Your task to perform on an android device: stop showing notifications on the lock screen Image 0: 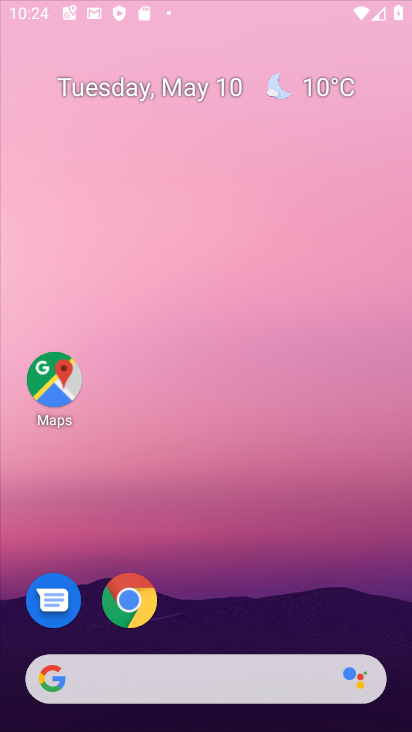
Step 0: drag from (235, 6) to (377, 4)
Your task to perform on an android device: stop showing notifications on the lock screen Image 1: 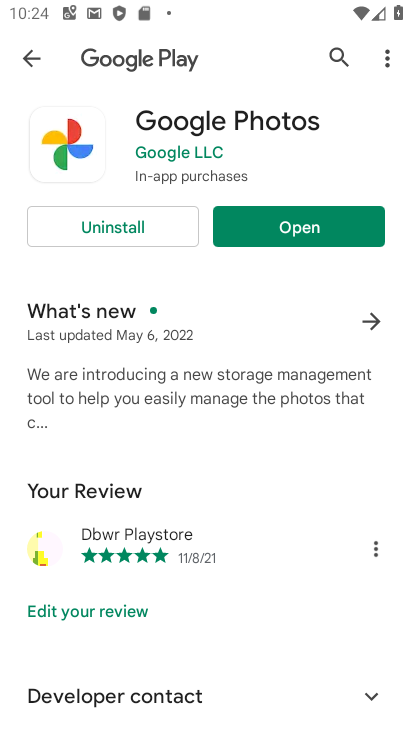
Step 1: press back button
Your task to perform on an android device: stop showing notifications on the lock screen Image 2: 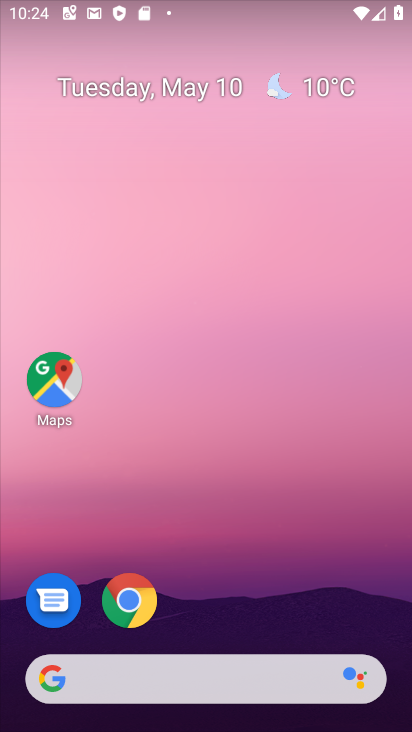
Step 2: drag from (273, 288) to (250, 19)
Your task to perform on an android device: stop showing notifications on the lock screen Image 3: 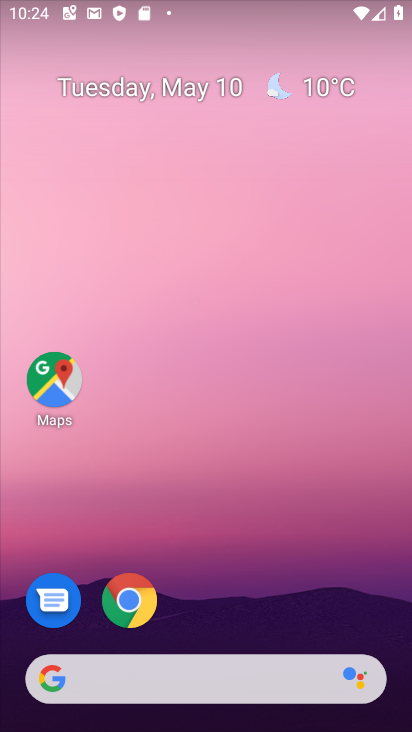
Step 3: drag from (215, 568) to (207, 2)
Your task to perform on an android device: stop showing notifications on the lock screen Image 4: 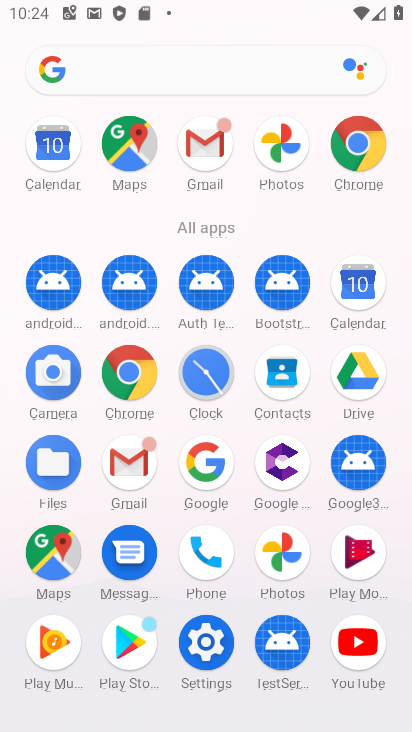
Step 4: click (206, 638)
Your task to perform on an android device: stop showing notifications on the lock screen Image 5: 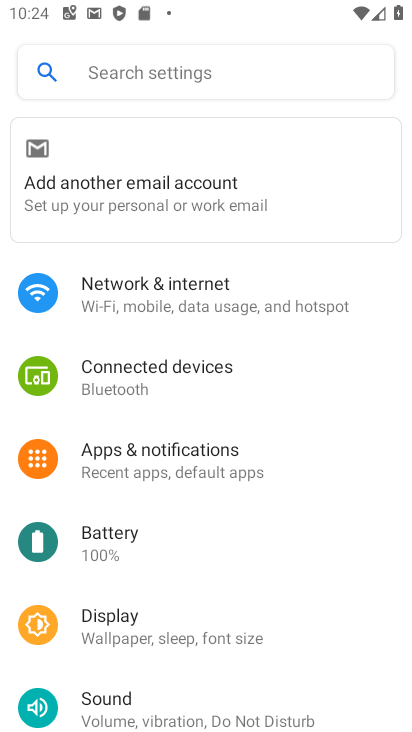
Step 5: click (182, 456)
Your task to perform on an android device: stop showing notifications on the lock screen Image 6: 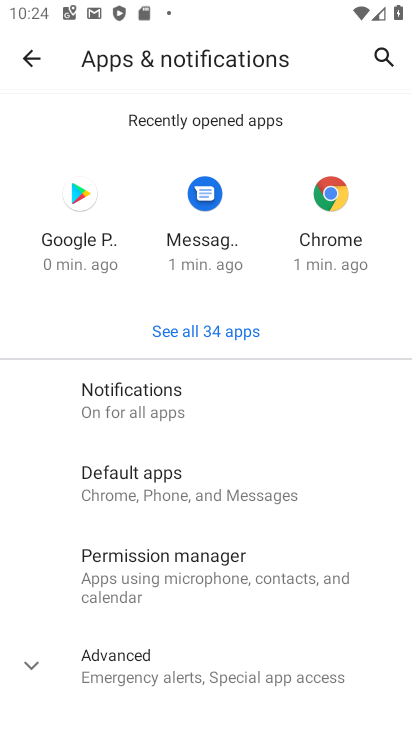
Step 6: click (171, 404)
Your task to perform on an android device: stop showing notifications on the lock screen Image 7: 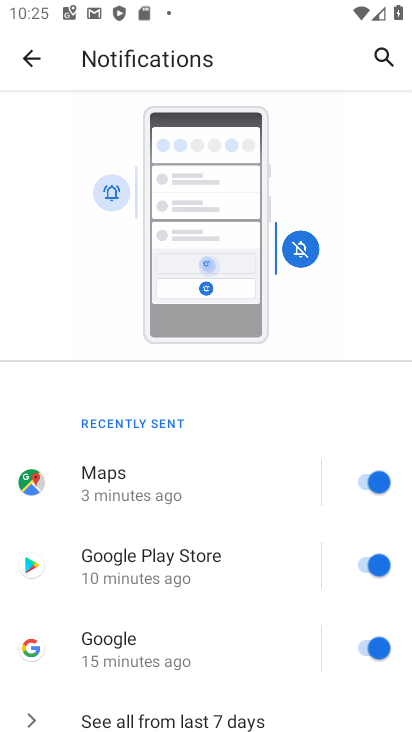
Step 7: drag from (187, 658) to (208, 174)
Your task to perform on an android device: stop showing notifications on the lock screen Image 8: 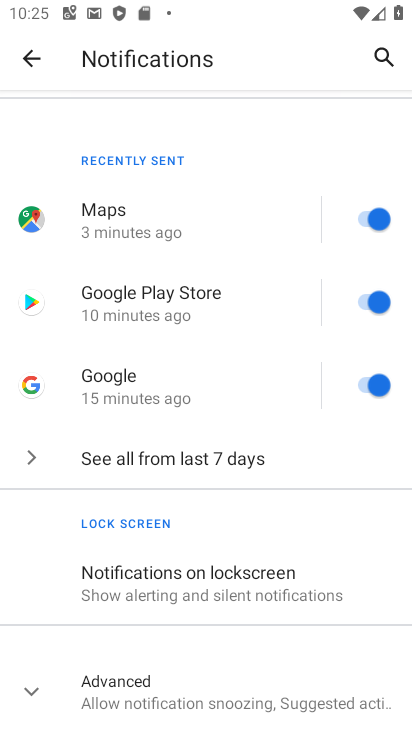
Step 8: click (208, 580)
Your task to perform on an android device: stop showing notifications on the lock screen Image 9: 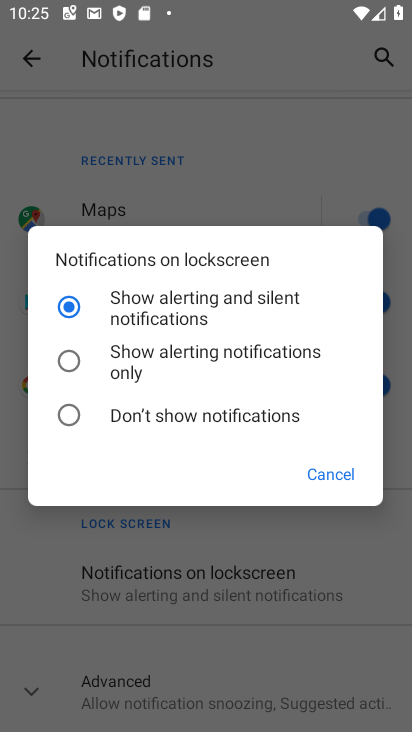
Step 9: click (157, 313)
Your task to perform on an android device: stop showing notifications on the lock screen Image 10: 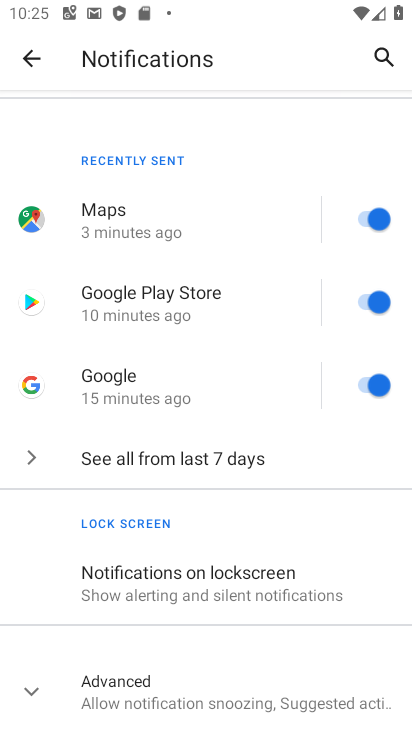
Step 10: task complete